Your task to perform on an android device: turn off priority inbox in the gmail app Image 0: 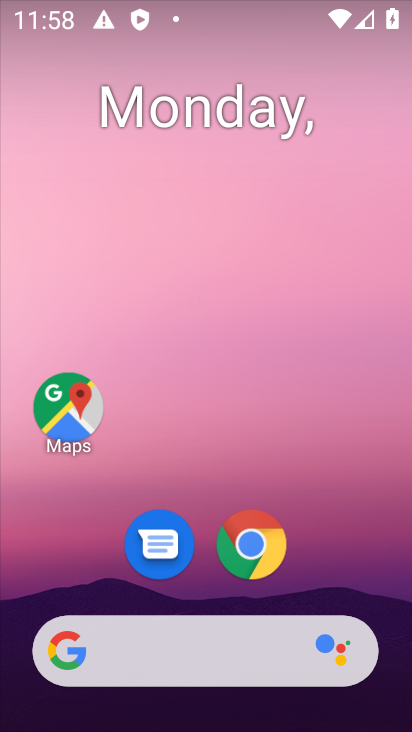
Step 0: drag from (347, 537) to (268, 29)
Your task to perform on an android device: turn off priority inbox in the gmail app Image 1: 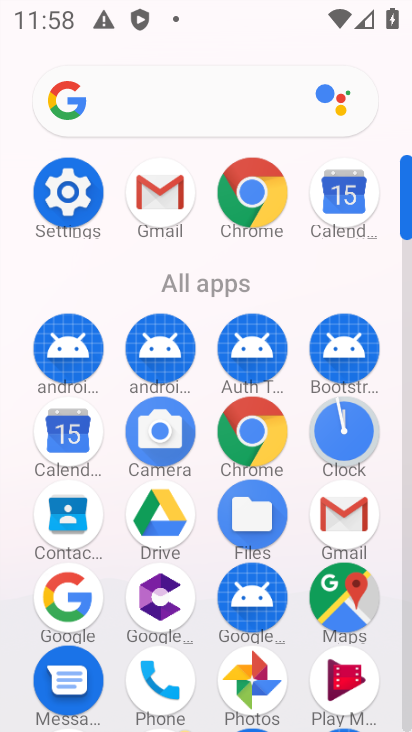
Step 1: click (154, 178)
Your task to perform on an android device: turn off priority inbox in the gmail app Image 2: 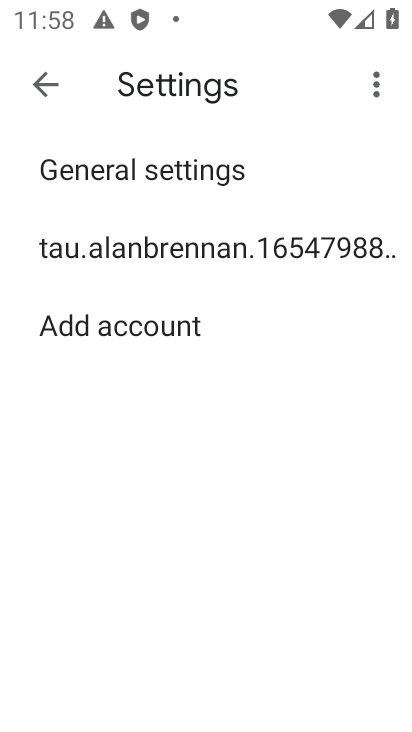
Step 2: click (162, 249)
Your task to perform on an android device: turn off priority inbox in the gmail app Image 3: 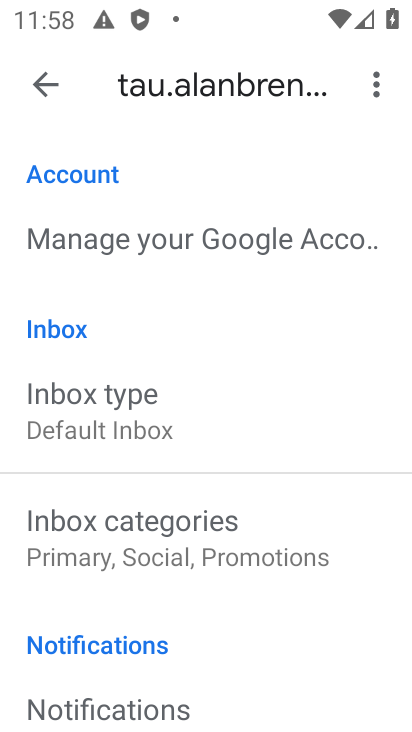
Step 3: click (151, 424)
Your task to perform on an android device: turn off priority inbox in the gmail app Image 4: 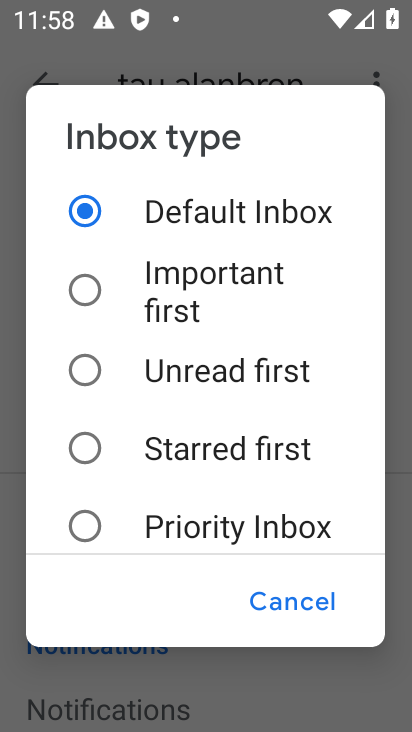
Step 4: task complete